Your task to perform on an android device: Open Google Maps and go to "Timeline" Image 0: 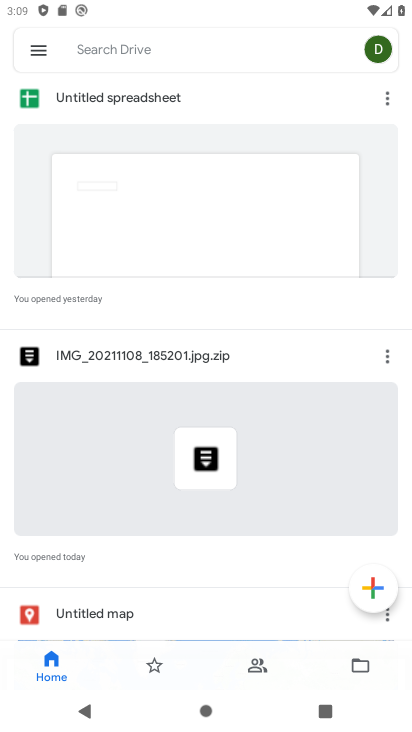
Step 0: press home button
Your task to perform on an android device: Open Google Maps and go to "Timeline" Image 1: 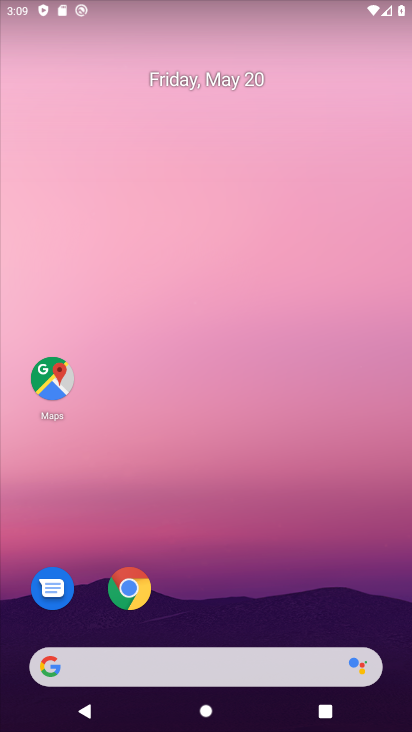
Step 1: click (53, 380)
Your task to perform on an android device: Open Google Maps and go to "Timeline" Image 2: 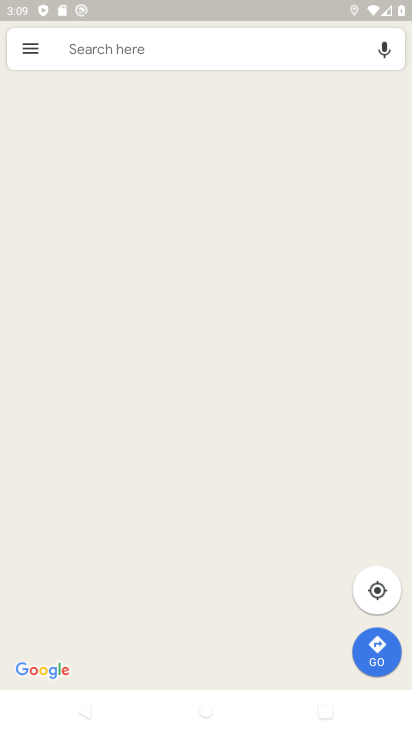
Step 2: click (39, 55)
Your task to perform on an android device: Open Google Maps and go to "Timeline" Image 3: 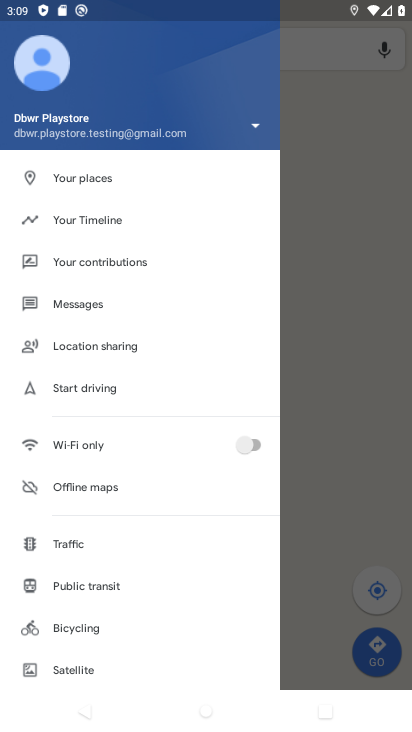
Step 3: click (133, 215)
Your task to perform on an android device: Open Google Maps and go to "Timeline" Image 4: 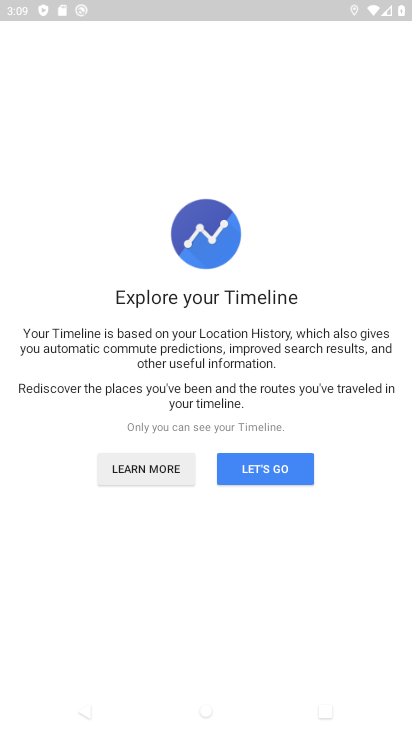
Step 4: click (277, 470)
Your task to perform on an android device: Open Google Maps and go to "Timeline" Image 5: 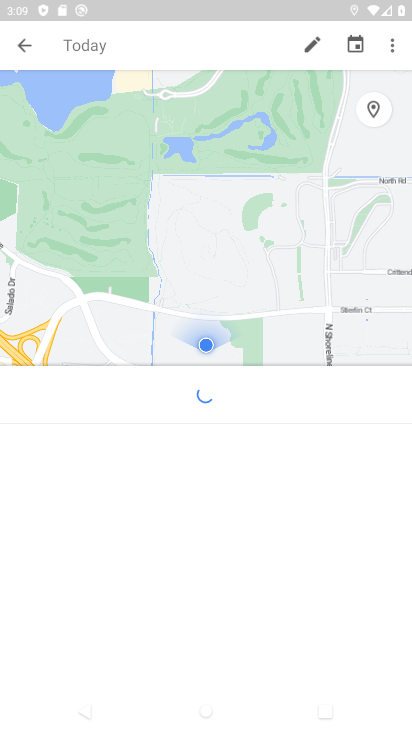
Step 5: task complete